Your task to perform on an android device: toggle improve location accuracy Image 0: 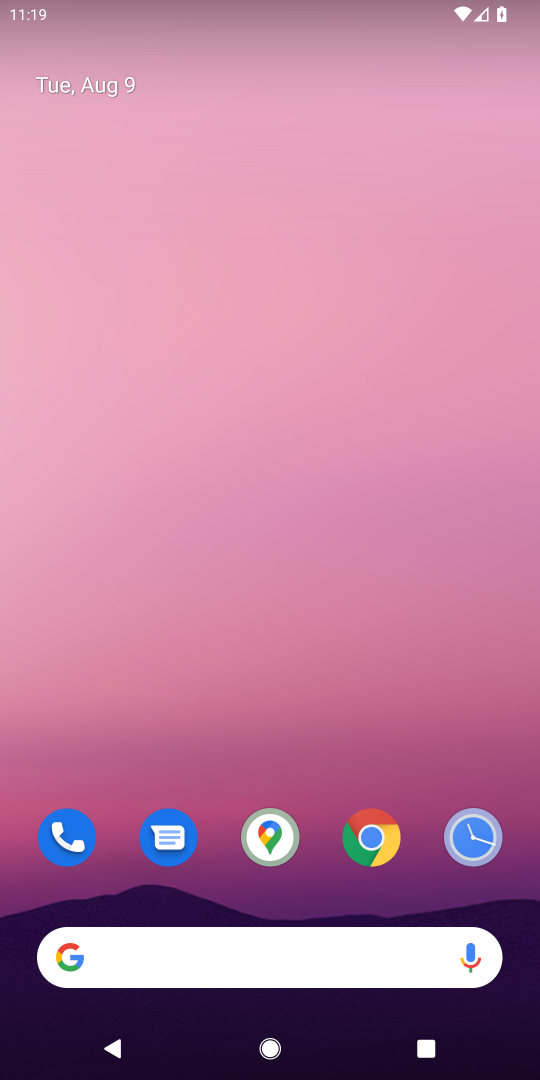
Step 0: click (539, 854)
Your task to perform on an android device: toggle improve location accuracy Image 1: 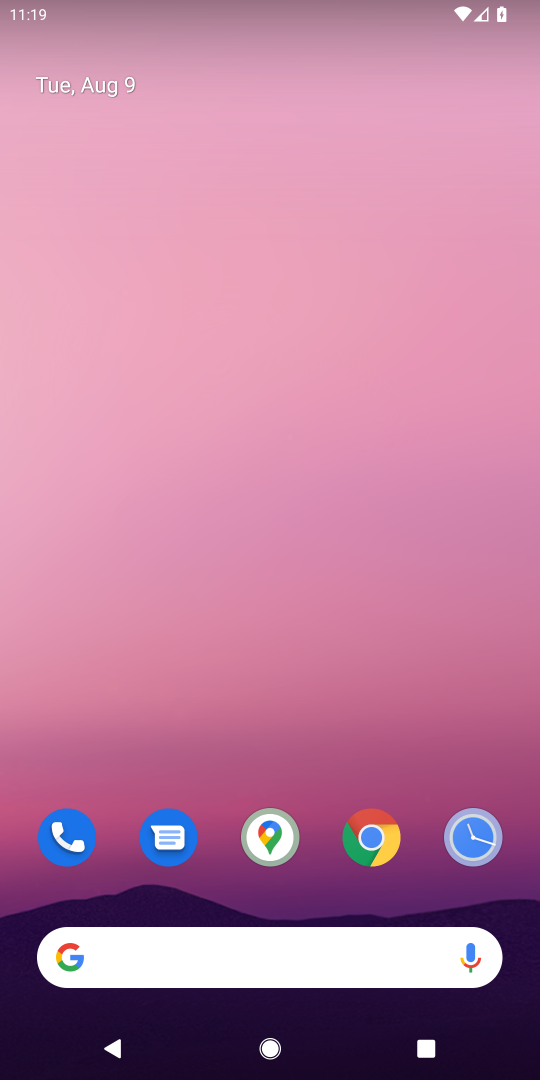
Step 1: drag from (338, 918) to (296, 101)
Your task to perform on an android device: toggle improve location accuracy Image 2: 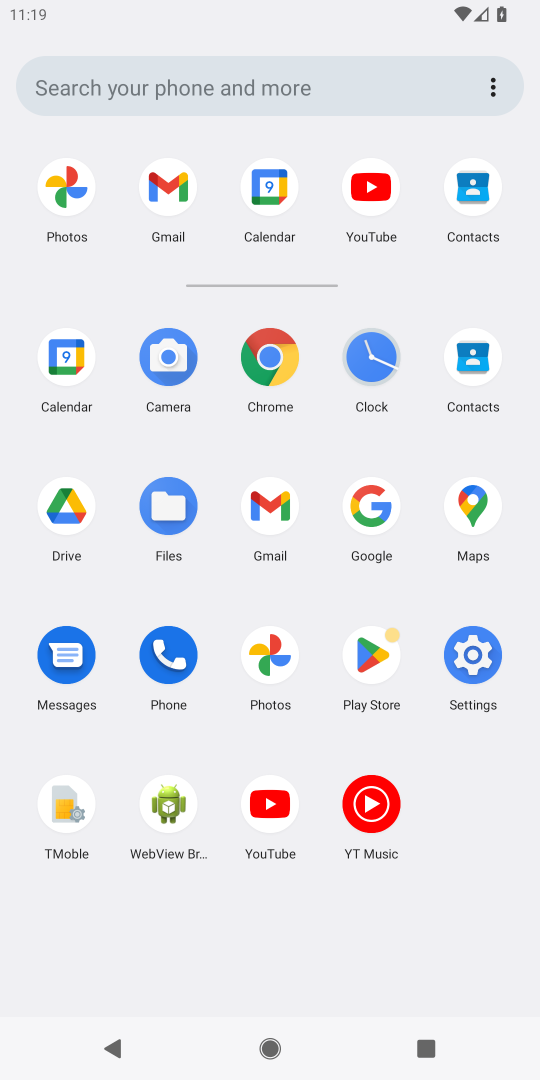
Step 2: click (469, 650)
Your task to perform on an android device: toggle improve location accuracy Image 3: 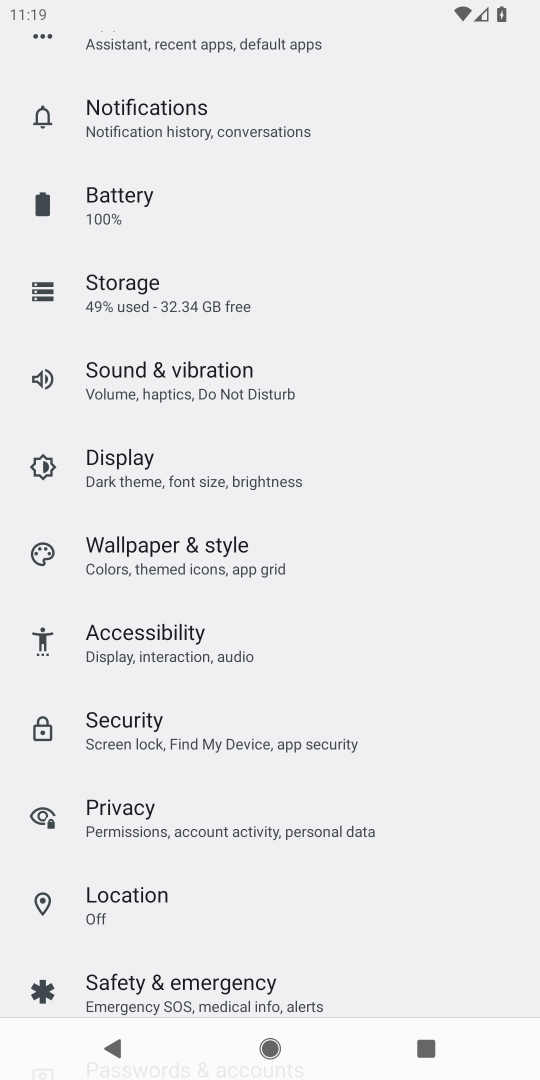
Step 3: click (119, 891)
Your task to perform on an android device: toggle improve location accuracy Image 4: 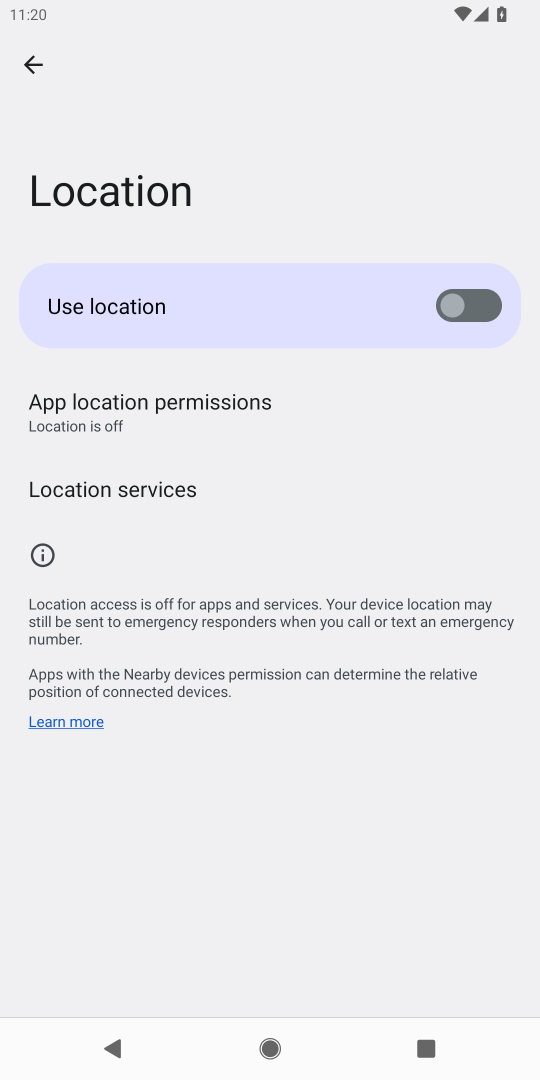
Step 4: click (100, 492)
Your task to perform on an android device: toggle improve location accuracy Image 5: 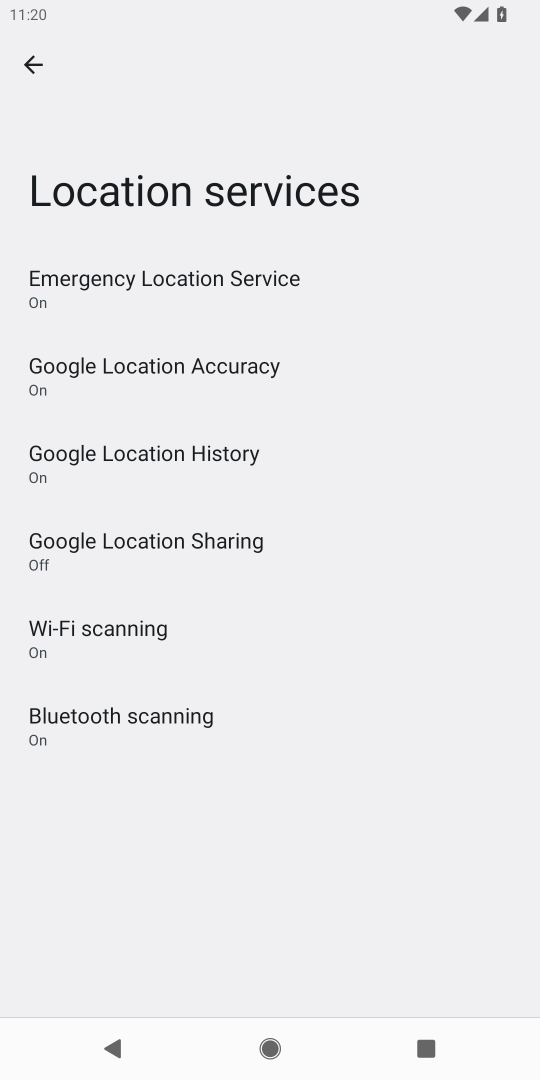
Step 5: click (125, 360)
Your task to perform on an android device: toggle improve location accuracy Image 6: 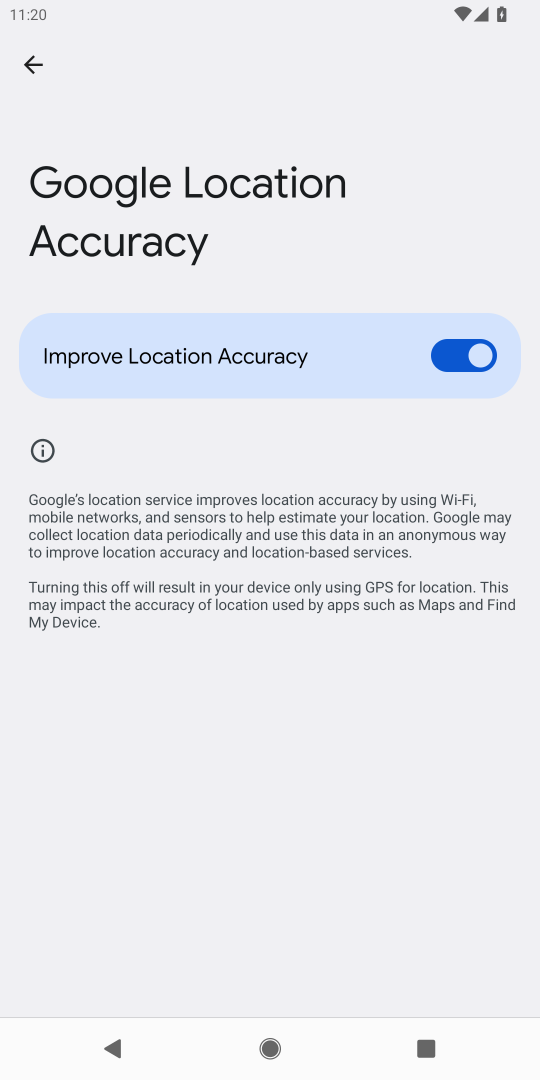
Step 6: task complete